Your task to perform on an android device: See recent photos Image 0: 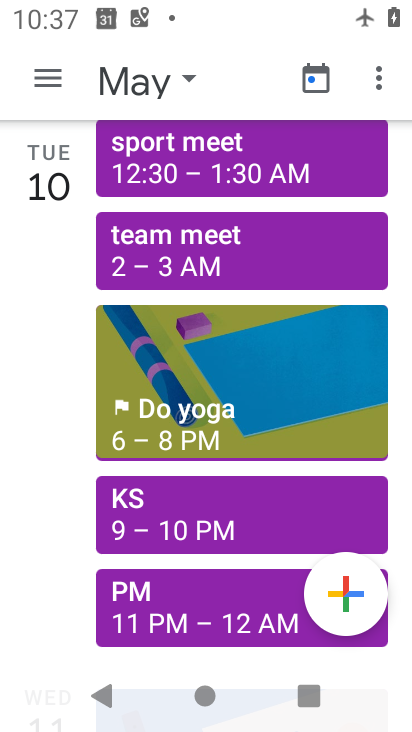
Step 0: press back button
Your task to perform on an android device: See recent photos Image 1: 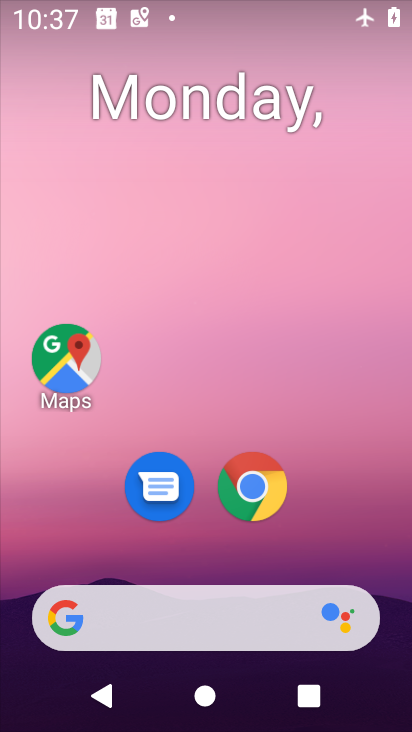
Step 1: drag from (362, 563) to (284, 0)
Your task to perform on an android device: See recent photos Image 2: 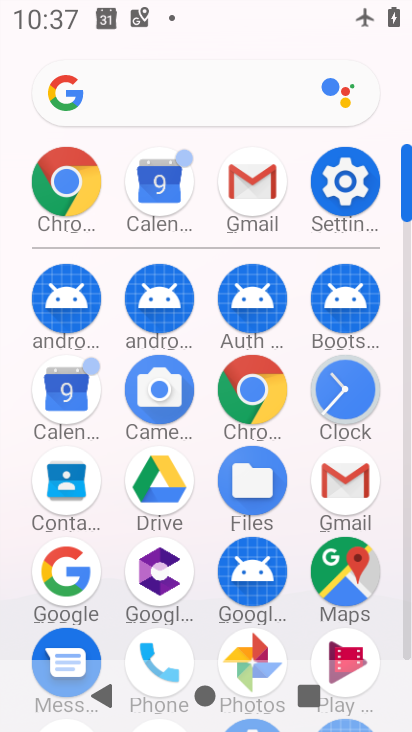
Step 2: click (252, 658)
Your task to perform on an android device: See recent photos Image 3: 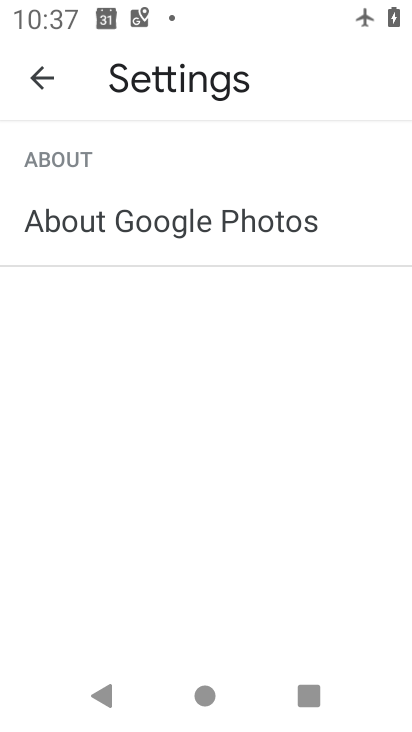
Step 3: click (40, 64)
Your task to perform on an android device: See recent photos Image 4: 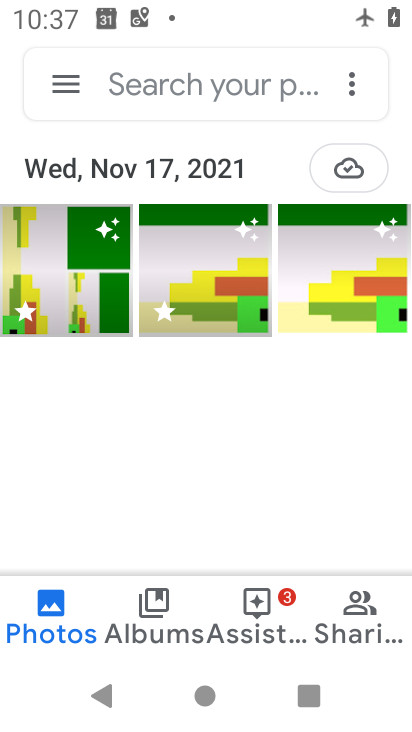
Step 4: task complete